Your task to perform on an android device: Open notification settings Image 0: 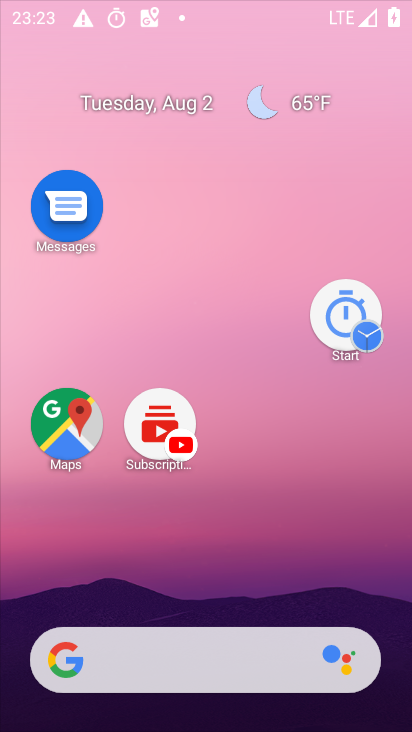
Step 0: click (140, 235)
Your task to perform on an android device: Open notification settings Image 1: 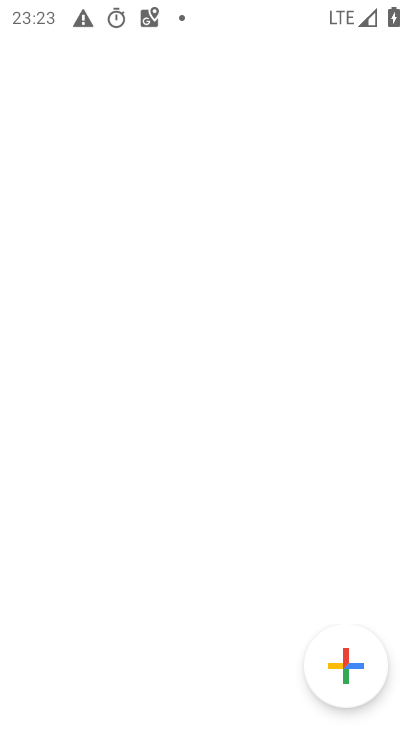
Step 1: drag from (170, 579) to (103, 254)
Your task to perform on an android device: Open notification settings Image 2: 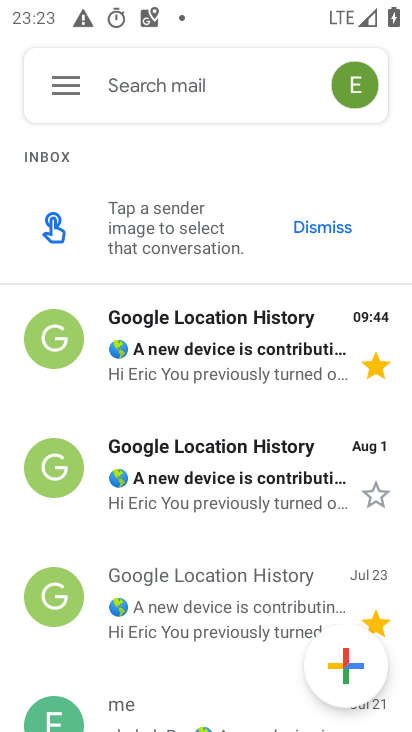
Step 2: press home button
Your task to perform on an android device: Open notification settings Image 3: 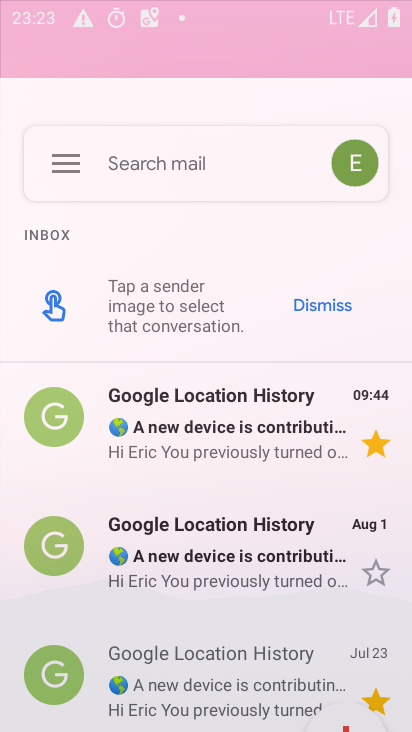
Step 3: press back button
Your task to perform on an android device: Open notification settings Image 4: 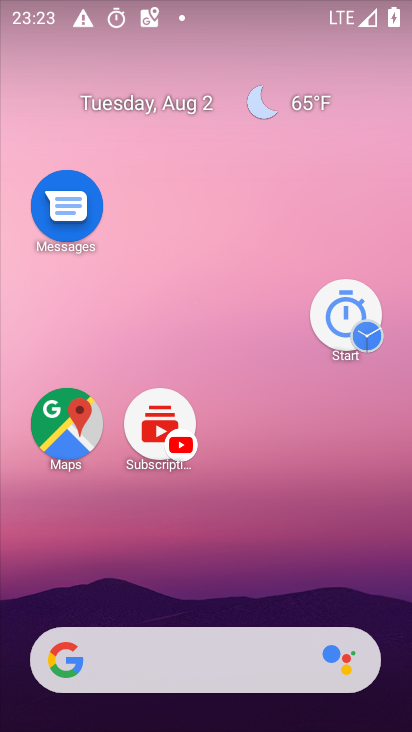
Step 4: drag from (231, 559) to (182, 267)
Your task to perform on an android device: Open notification settings Image 5: 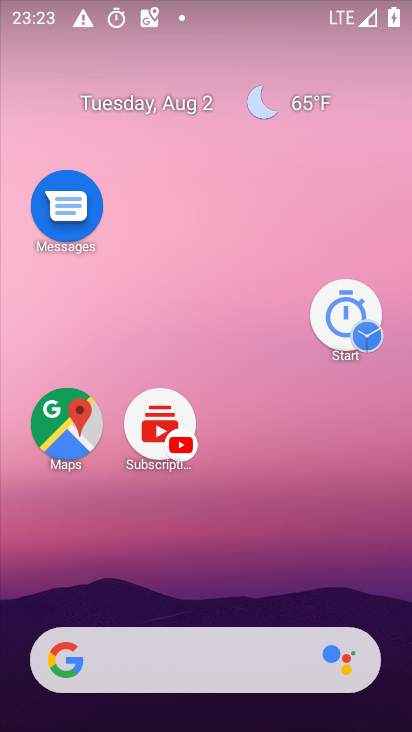
Step 5: click (225, 220)
Your task to perform on an android device: Open notification settings Image 6: 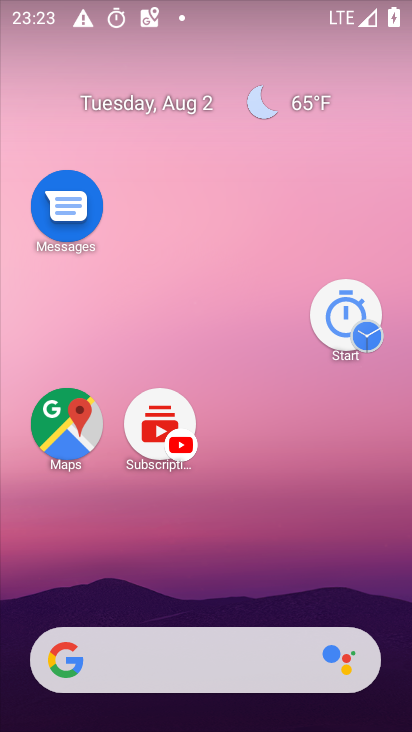
Step 6: drag from (222, 514) to (194, 98)
Your task to perform on an android device: Open notification settings Image 7: 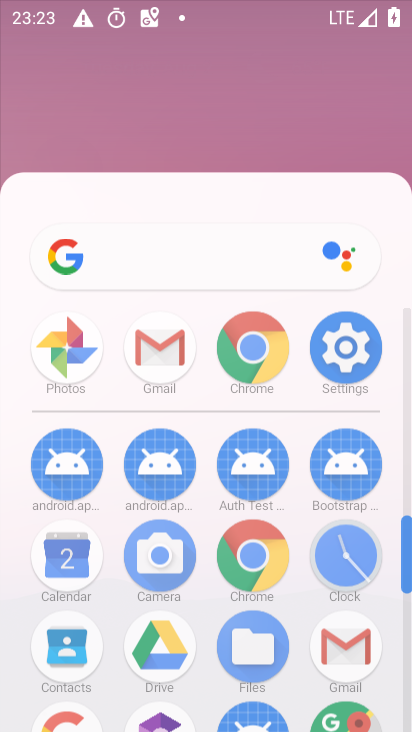
Step 7: drag from (231, 377) to (209, 169)
Your task to perform on an android device: Open notification settings Image 8: 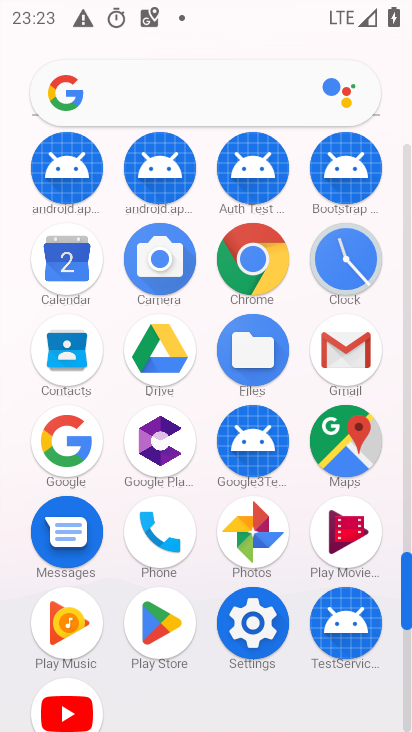
Step 8: click (248, 630)
Your task to perform on an android device: Open notification settings Image 9: 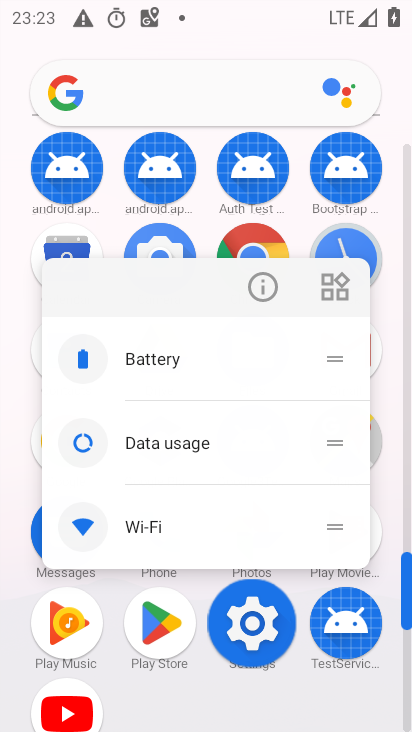
Step 9: click (244, 631)
Your task to perform on an android device: Open notification settings Image 10: 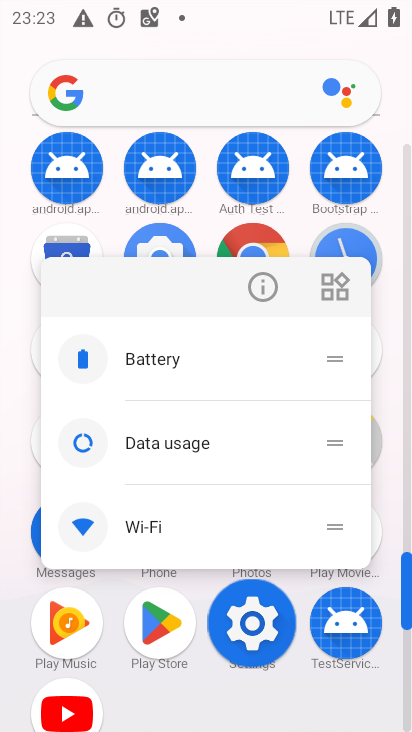
Step 10: click (245, 618)
Your task to perform on an android device: Open notification settings Image 11: 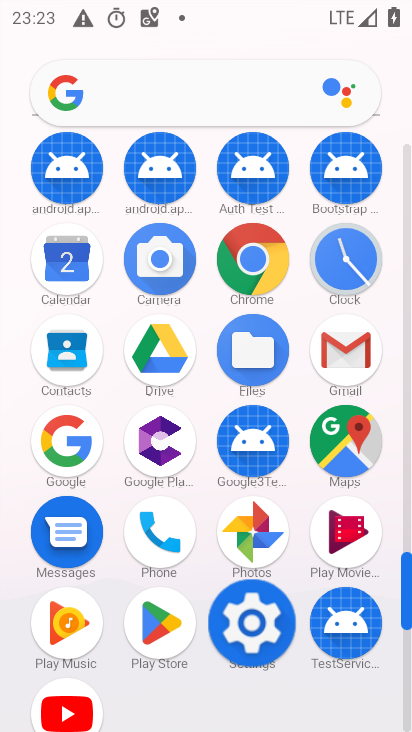
Step 11: click (249, 617)
Your task to perform on an android device: Open notification settings Image 12: 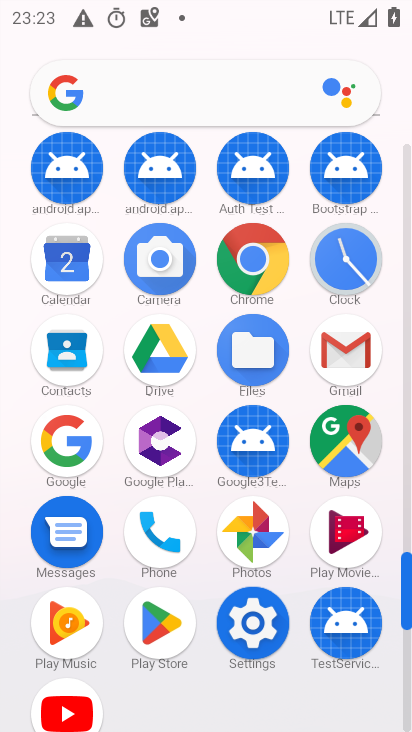
Step 12: click (252, 621)
Your task to perform on an android device: Open notification settings Image 13: 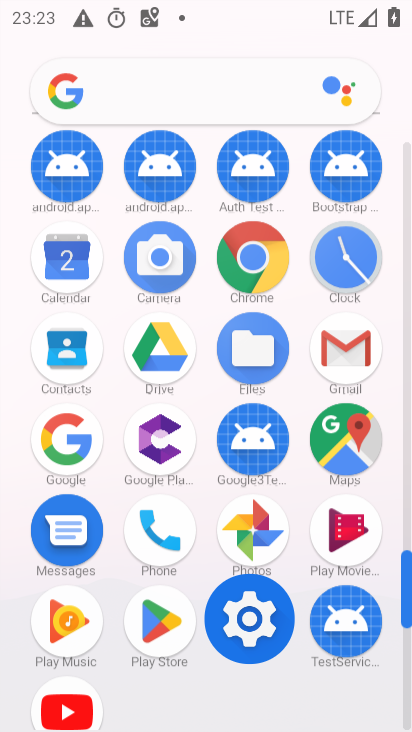
Step 13: click (252, 624)
Your task to perform on an android device: Open notification settings Image 14: 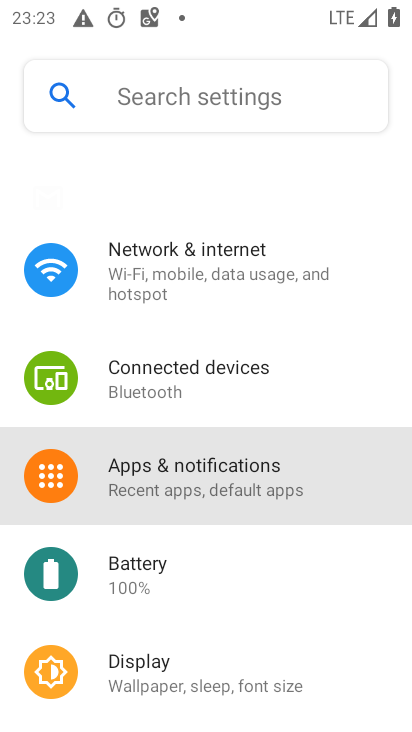
Step 14: click (252, 624)
Your task to perform on an android device: Open notification settings Image 15: 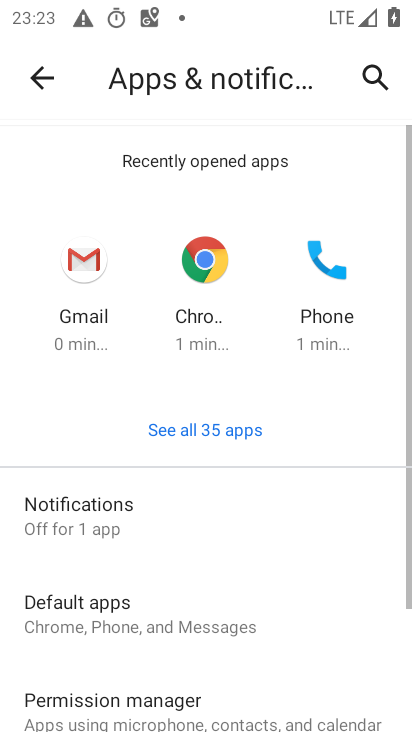
Step 15: click (45, 74)
Your task to perform on an android device: Open notification settings Image 16: 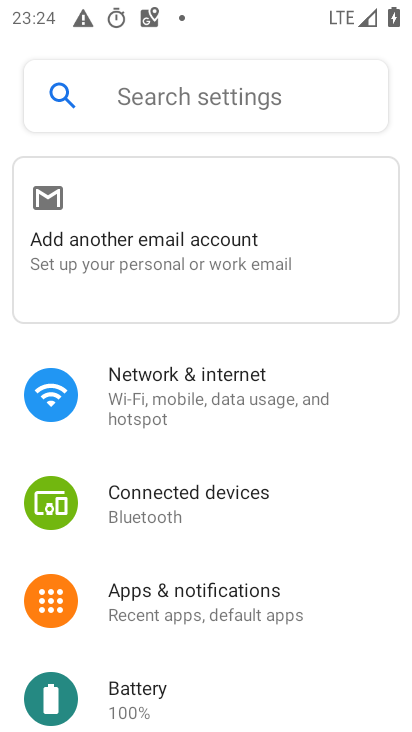
Step 16: click (176, 601)
Your task to perform on an android device: Open notification settings Image 17: 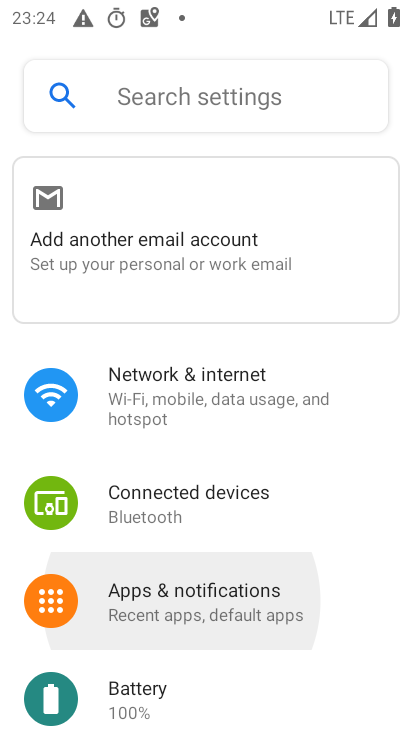
Step 17: click (176, 601)
Your task to perform on an android device: Open notification settings Image 18: 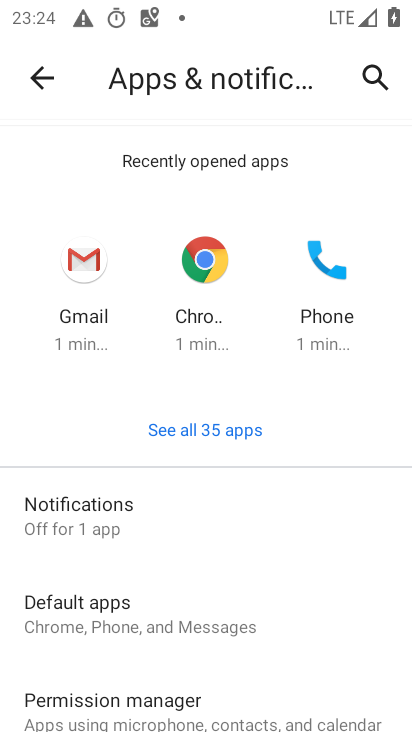
Step 18: click (75, 522)
Your task to perform on an android device: Open notification settings Image 19: 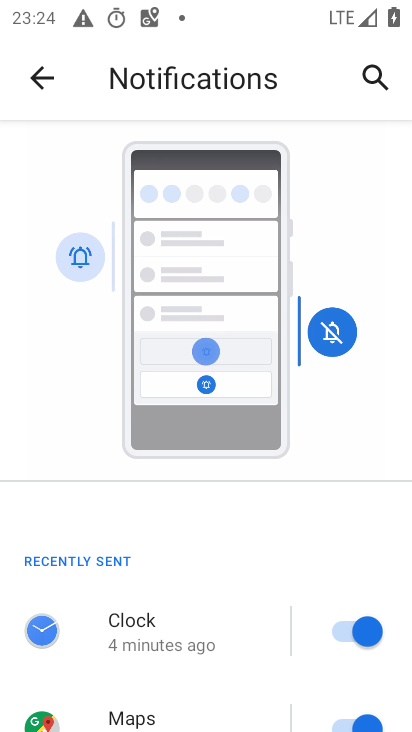
Step 19: drag from (184, 569) to (166, 358)
Your task to perform on an android device: Open notification settings Image 20: 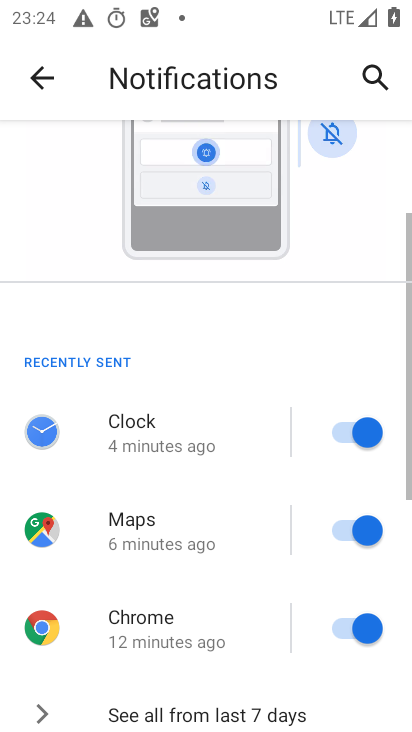
Step 20: drag from (204, 574) to (171, 246)
Your task to perform on an android device: Open notification settings Image 21: 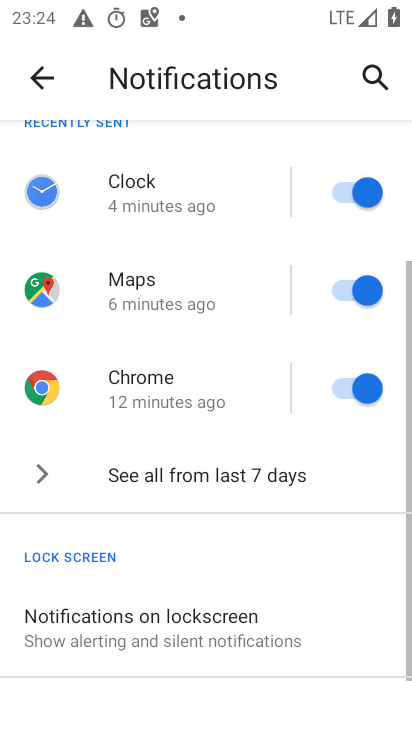
Step 21: drag from (195, 563) to (155, 317)
Your task to perform on an android device: Open notification settings Image 22: 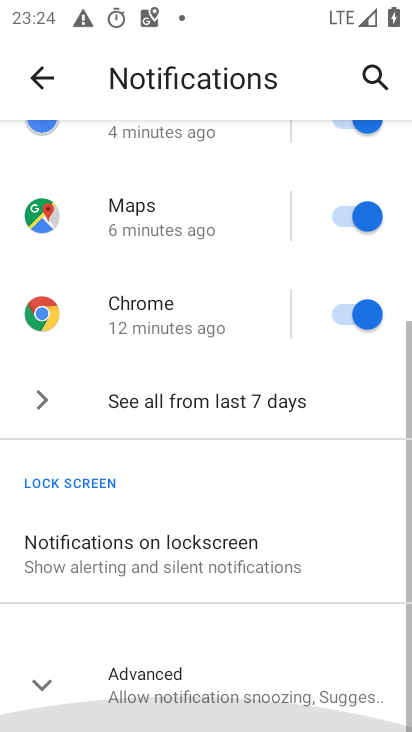
Step 22: drag from (168, 525) to (140, 366)
Your task to perform on an android device: Open notification settings Image 23: 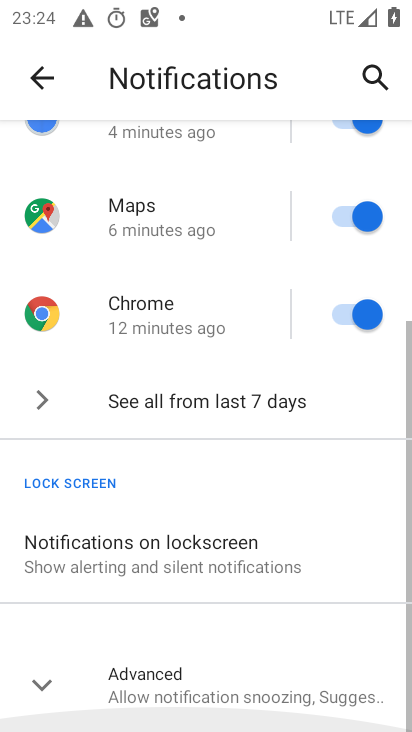
Step 23: drag from (171, 373) to (161, 290)
Your task to perform on an android device: Open notification settings Image 24: 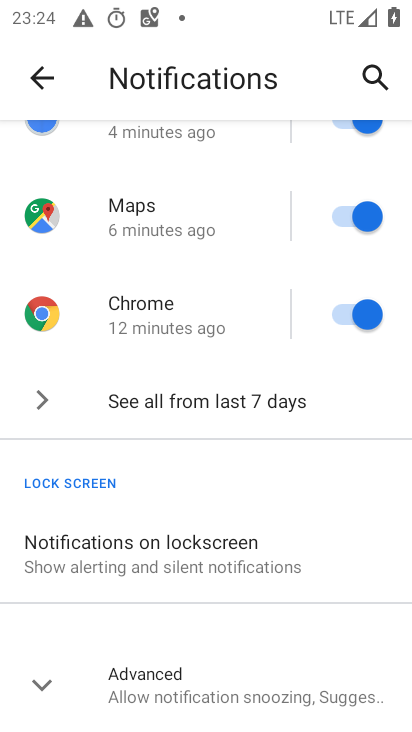
Step 24: click (127, 542)
Your task to perform on an android device: Open notification settings Image 25: 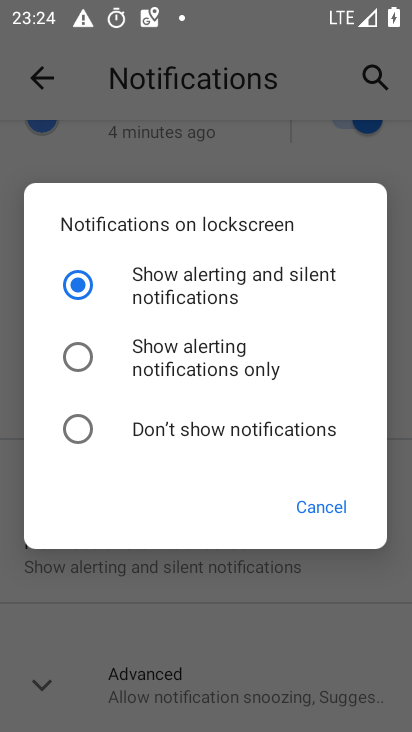
Step 25: task complete